Your task to perform on an android device: find snoozed emails in the gmail app Image 0: 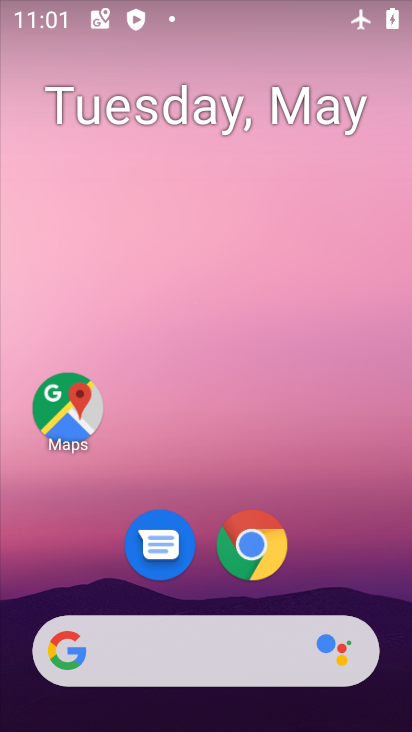
Step 0: drag from (230, 692) to (241, 167)
Your task to perform on an android device: find snoozed emails in the gmail app Image 1: 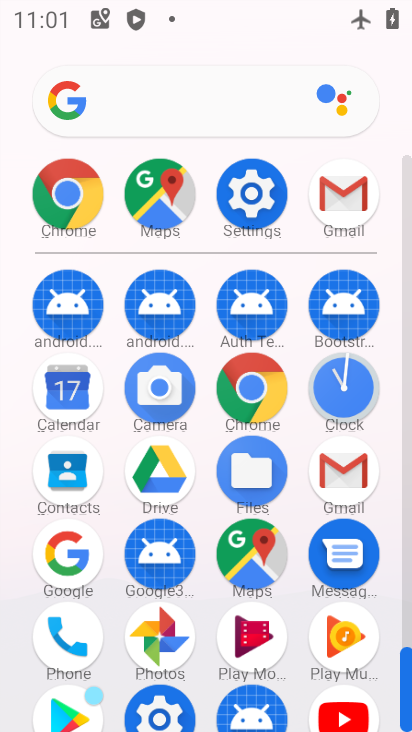
Step 1: click (346, 465)
Your task to perform on an android device: find snoozed emails in the gmail app Image 2: 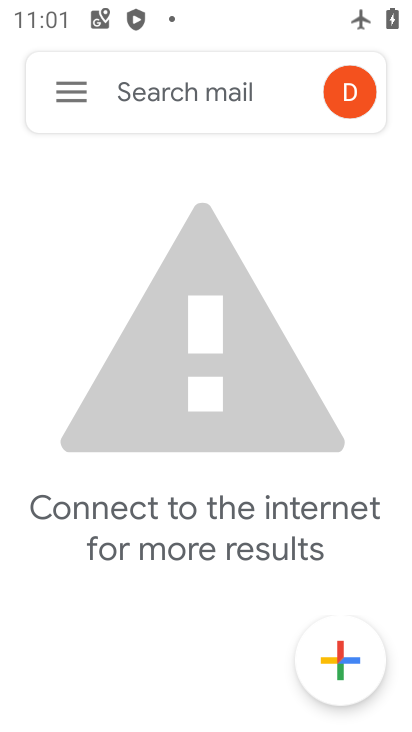
Step 2: click (68, 107)
Your task to perform on an android device: find snoozed emails in the gmail app Image 3: 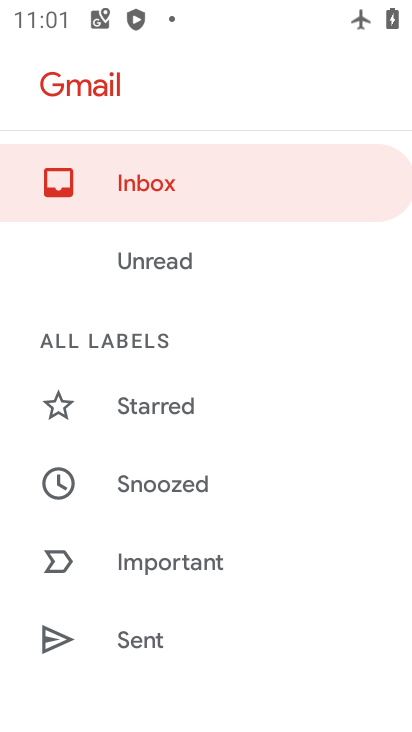
Step 3: click (179, 495)
Your task to perform on an android device: find snoozed emails in the gmail app Image 4: 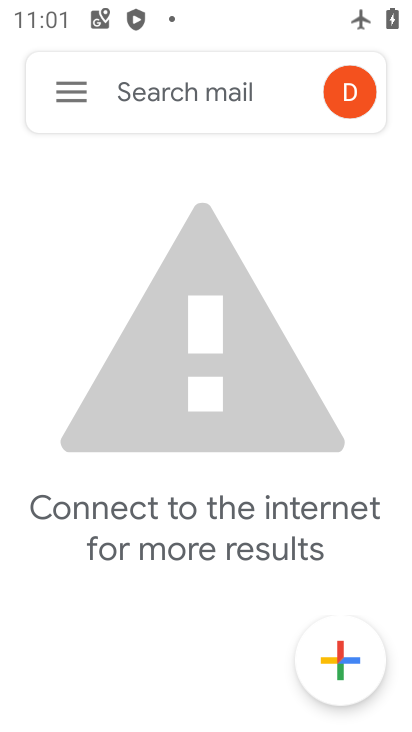
Step 4: click (56, 92)
Your task to perform on an android device: find snoozed emails in the gmail app Image 5: 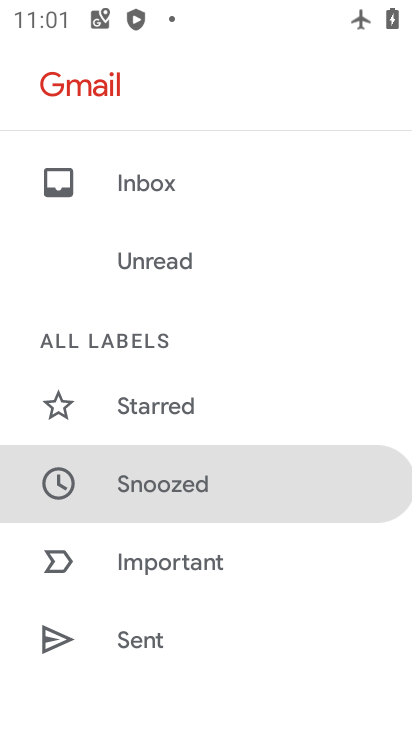
Step 5: task complete